Your task to perform on an android device: manage bookmarks in the chrome app Image 0: 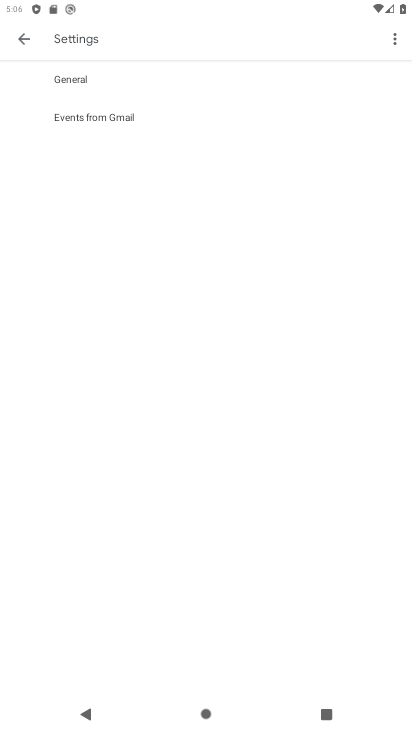
Step 0: press home button
Your task to perform on an android device: manage bookmarks in the chrome app Image 1: 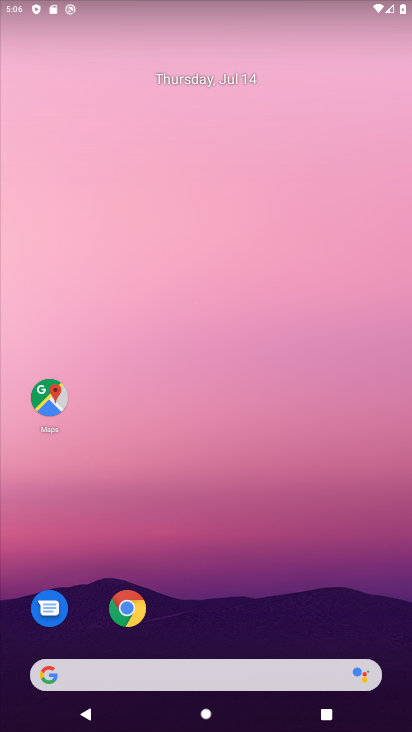
Step 1: click (128, 609)
Your task to perform on an android device: manage bookmarks in the chrome app Image 2: 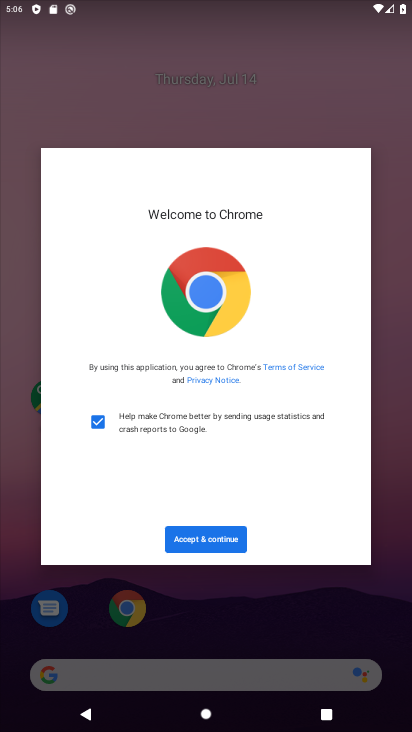
Step 2: click (203, 543)
Your task to perform on an android device: manage bookmarks in the chrome app Image 3: 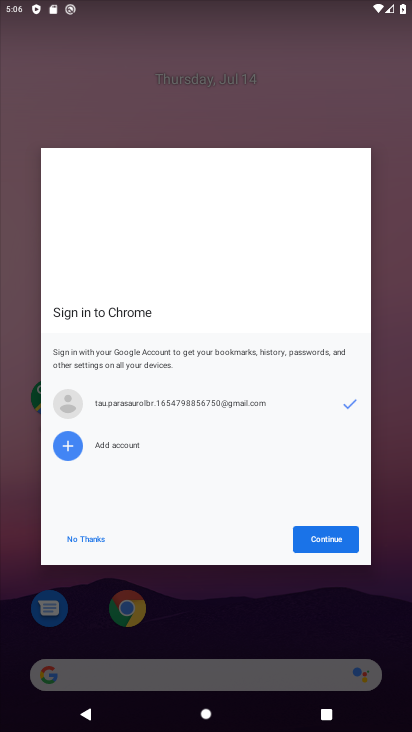
Step 3: click (328, 542)
Your task to perform on an android device: manage bookmarks in the chrome app Image 4: 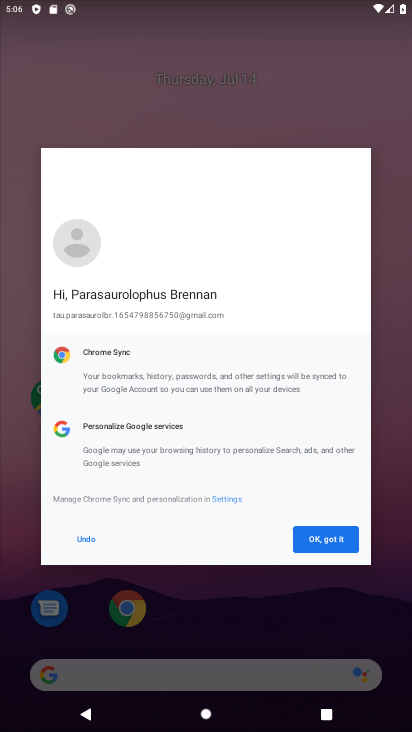
Step 4: click (328, 542)
Your task to perform on an android device: manage bookmarks in the chrome app Image 5: 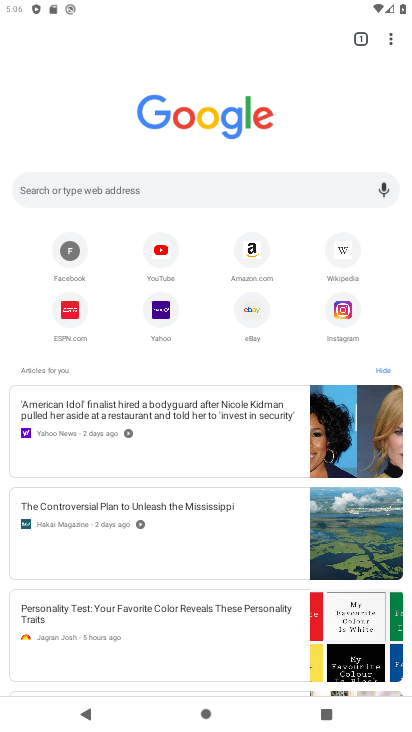
Step 5: click (390, 41)
Your task to perform on an android device: manage bookmarks in the chrome app Image 6: 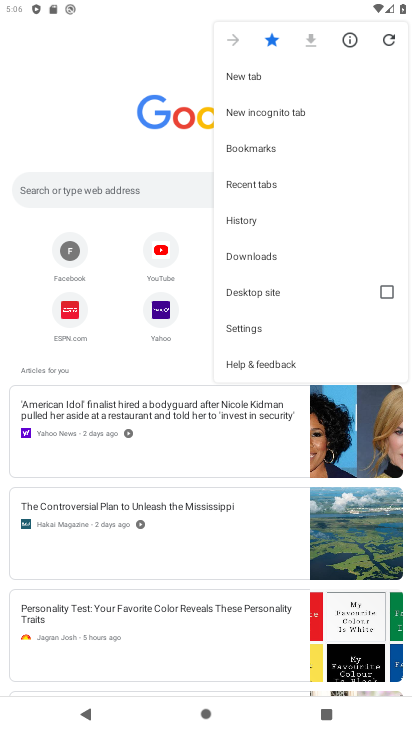
Step 6: click (269, 151)
Your task to perform on an android device: manage bookmarks in the chrome app Image 7: 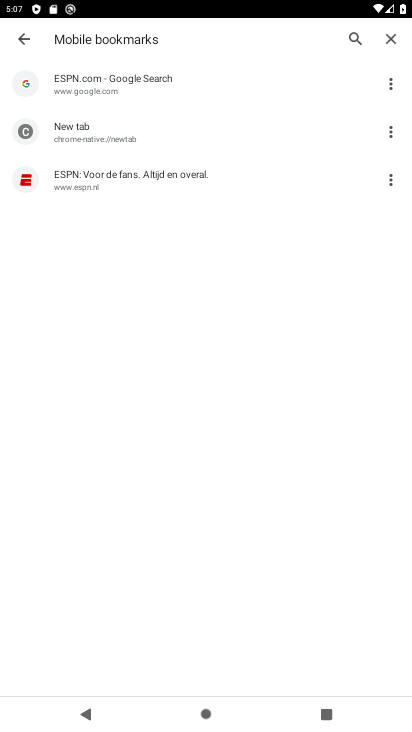
Step 7: click (388, 177)
Your task to perform on an android device: manage bookmarks in the chrome app Image 8: 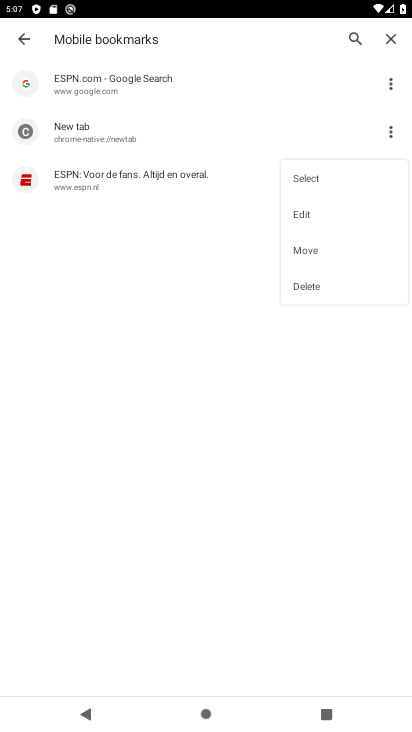
Step 8: click (309, 246)
Your task to perform on an android device: manage bookmarks in the chrome app Image 9: 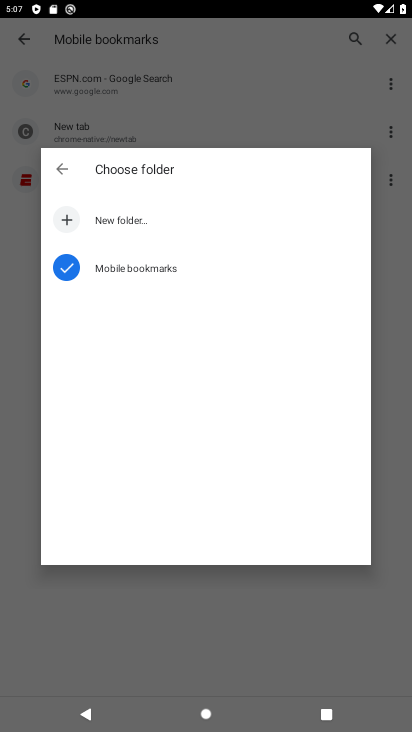
Step 9: click (167, 265)
Your task to perform on an android device: manage bookmarks in the chrome app Image 10: 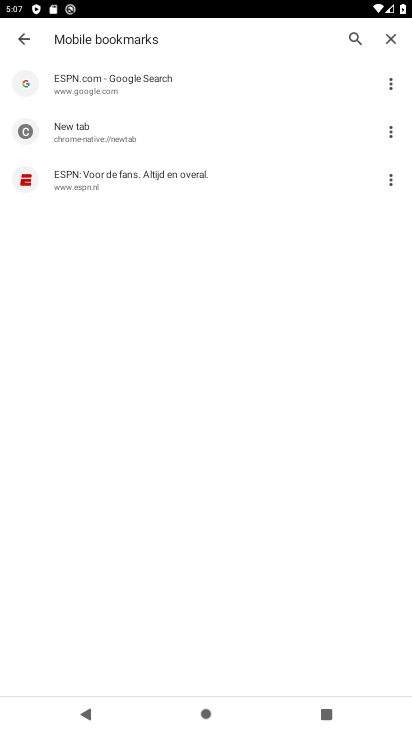
Step 10: task complete